Your task to perform on an android device: Open Google Chrome and click the shortcut for Amazon.com Image 0: 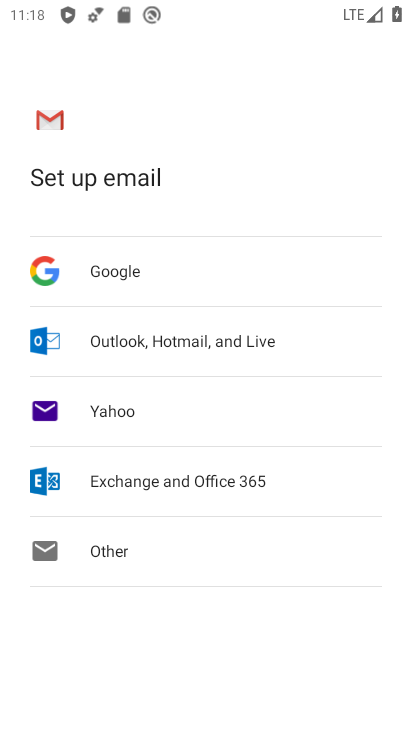
Step 0: press home button
Your task to perform on an android device: Open Google Chrome and click the shortcut for Amazon.com Image 1: 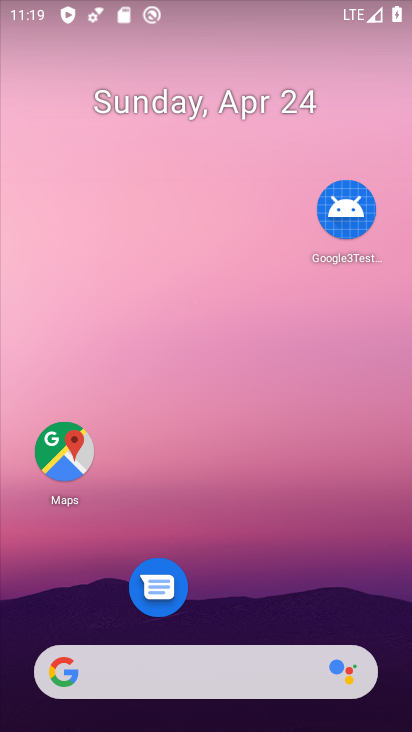
Step 1: drag from (359, 568) to (311, 39)
Your task to perform on an android device: Open Google Chrome and click the shortcut for Amazon.com Image 2: 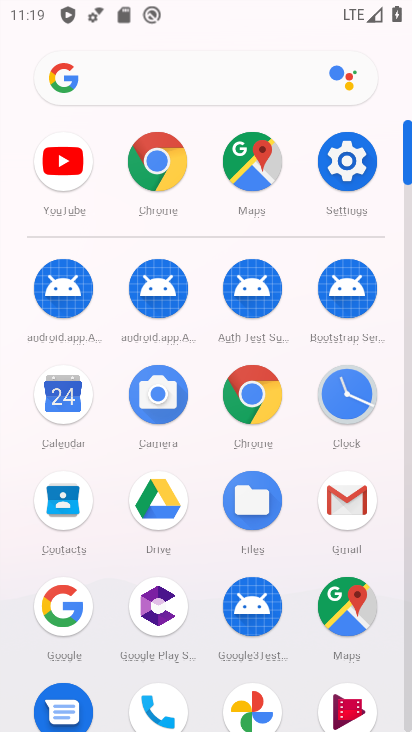
Step 2: drag from (188, 591) to (227, 167)
Your task to perform on an android device: Open Google Chrome and click the shortcut for Amazon.com Image 3: 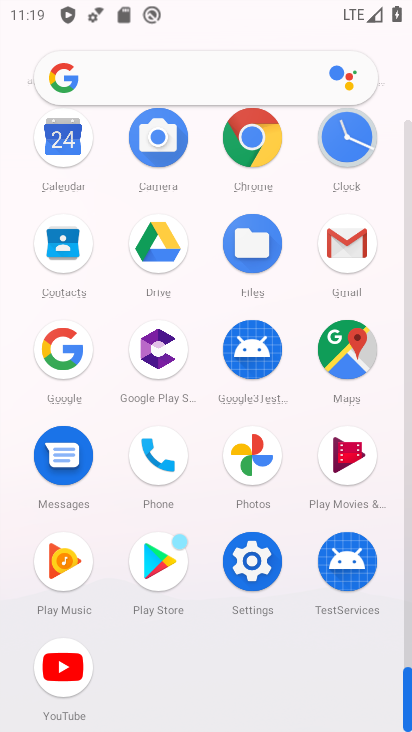
Step 3: click (262, 151)
Your task to perform on an android device: Open Google Chrome and click the shortcut for Amazon.com Image 4: 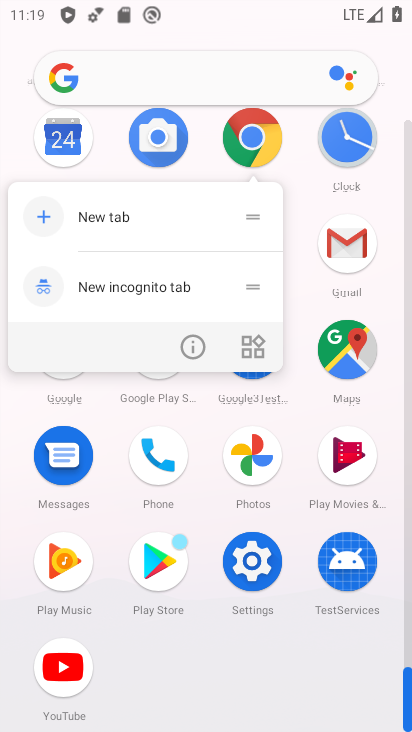
Step 4: click (259, 162)
Your task to perform on an android device: Open Google Chrome and click the shortcut for Amazon.com Image 5: 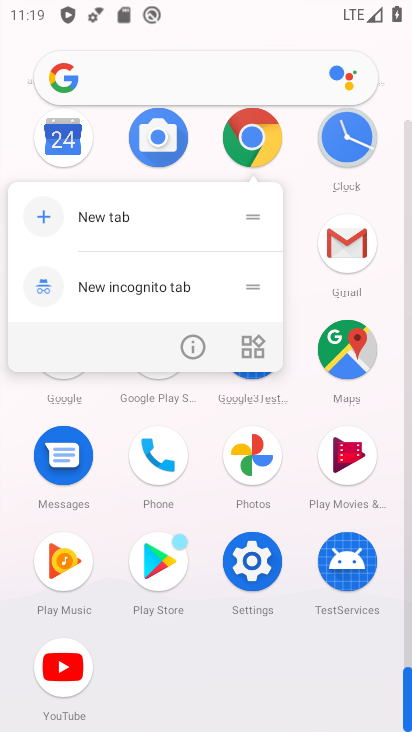
Step 5: click (258, 167)
Your task to perform on an android device: Open Google Chrome and click the shortcut for Amazon.com Image 6: 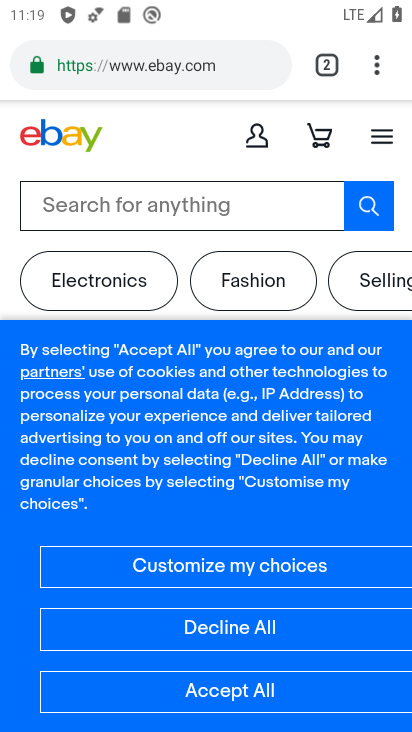
Step 6: click (328, 75)
Your task to perform on an android device: Open Google Chrome and click the shortcut for Amazon.com Image 7: 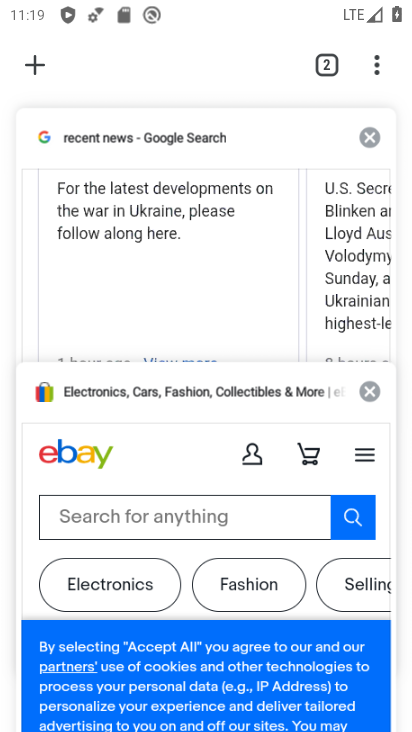
Step 7: click (43, 66)
Your task to perform on an android device: Open Google Chrome and click the shortcut for Amazon.com Image 8: 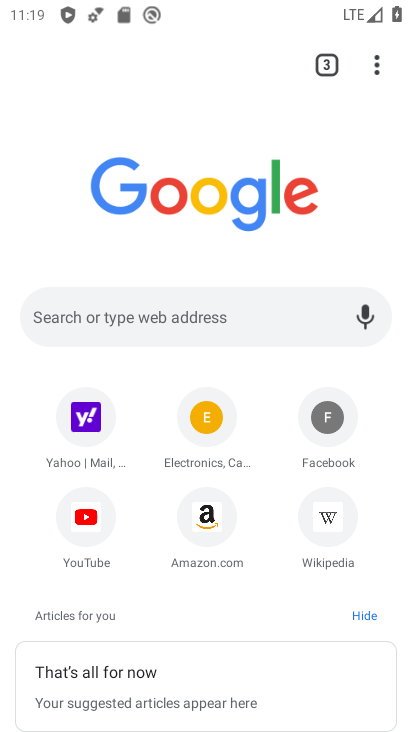
Step 8: click (216, 524)
Your task to perform on an android device: Open Google Chrome and click the shortcut for Amazon.com Image 9: 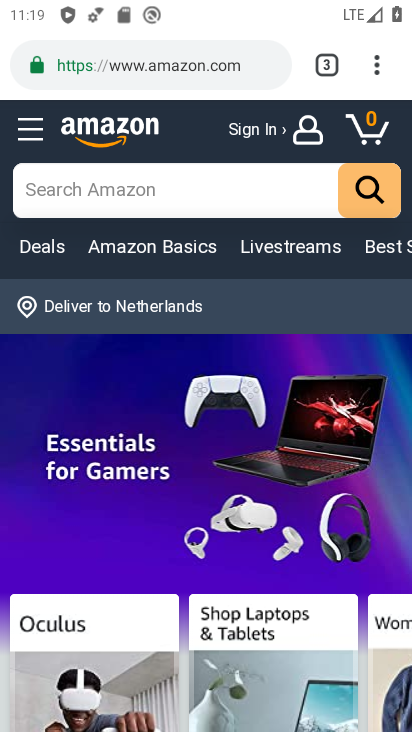
Step 9: task complete